Your task to perform on an android device: Go to Yahoo.com Image 0: 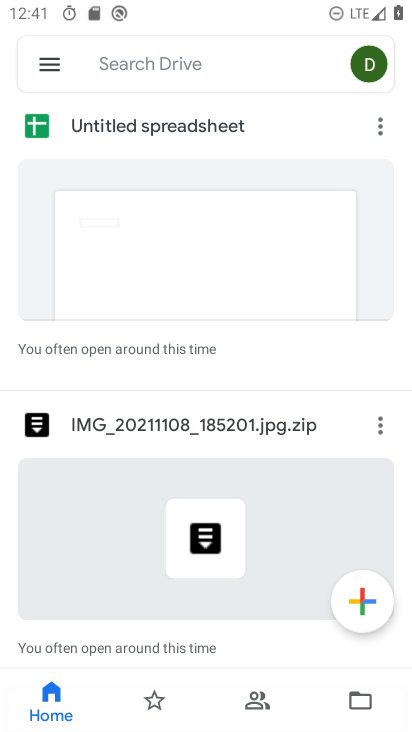
Step 0: press home button
Your task to perform on an android device: Go to Yahoo.com Image 1: 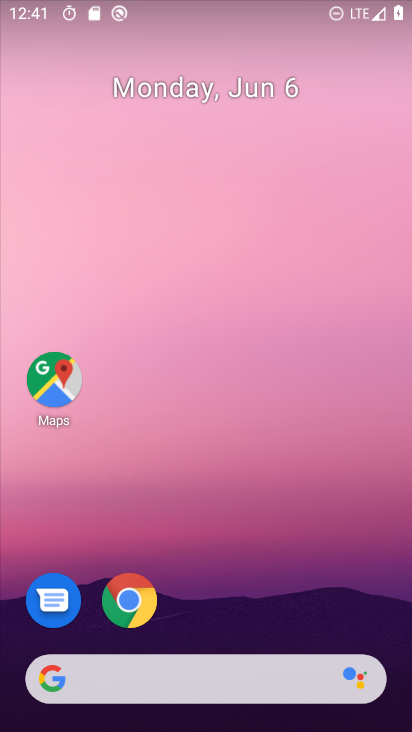
Step 1: click (144, 611)
Your task to perform on an android device: Go to Yahoo.com Image 2: 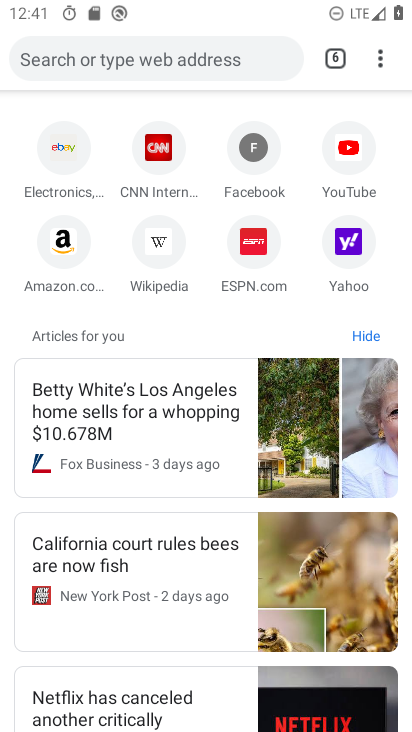
Step 2: click (332, 244)
Your task to perform on an android device: Go to Yahoo.com Image 3: 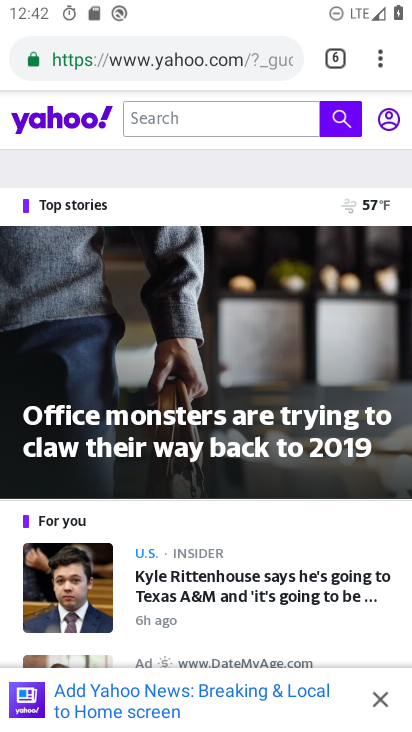
Step 3: task complete